Your task to perform on an android device: Look up the best rated headphones on Amazon. Image 0: 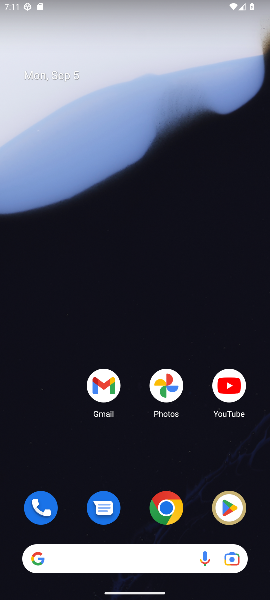
Step 0: click (169, 507)
Your task to perform on an android device: Look up the best rated headphones on Amazon. Image 1: 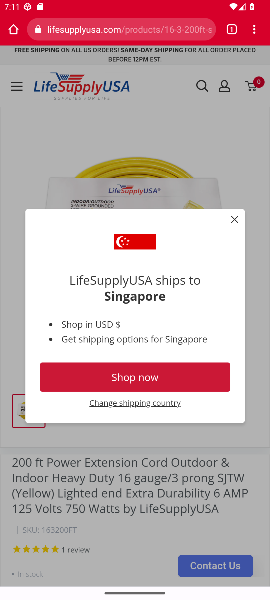
Step 1: click (237, 219)
Your task to perform on an android device: Look up the best rated headphones on Amazon. Image 2: 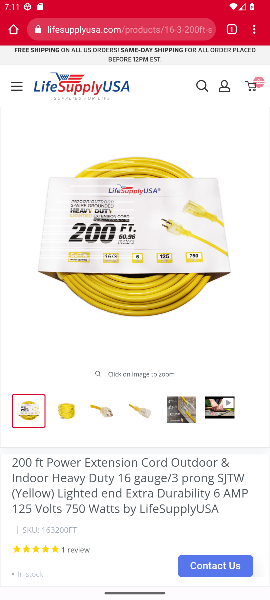
Step 2: click (79, 32)
Your task to perform on an android device: Look up the best rated headphones on Amazon. Image 3: 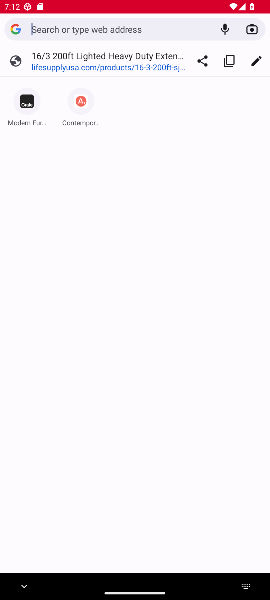
Step 3: type "amazon"
Your task to perform on an android device: Look up the best rated headphones on Amazon. Image 4: 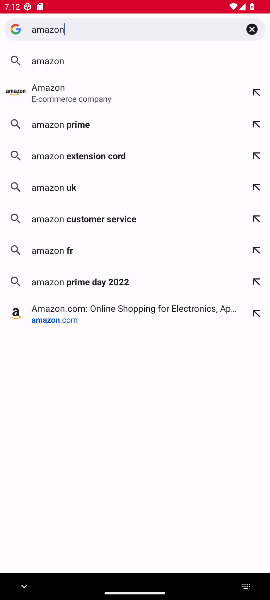
Step 4: click (43, 97)
Your task to perform on an android device: Look up the best rated headphones on Amazon. Image 5: 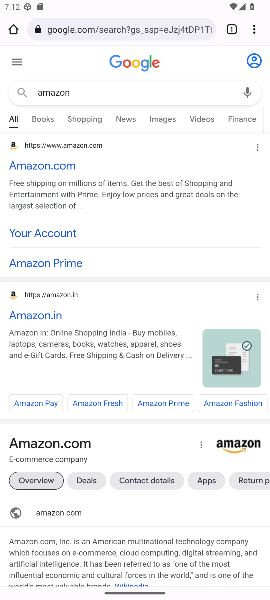
Step 5: click (39, 166)
Your task to perform on an android device: Look up the best rated headphones on Amazon. Image 6: 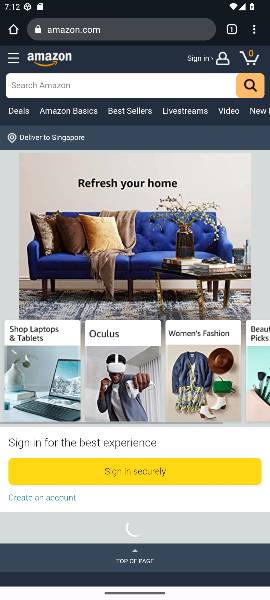
Step 6: click (108, 87)
Your task to perform on an android device: Look up the best rated headphones on Amazon. Image 7: 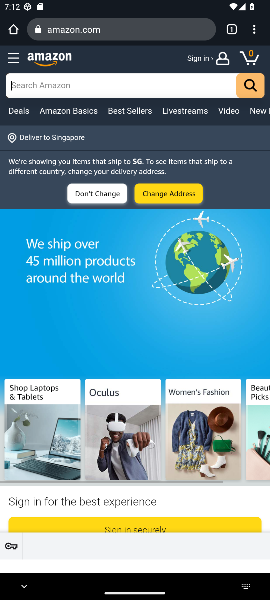
Step 7: type "best rated headphones"
Your task to perform on an android device: Look up the best rated headphones on Amazon. Image 8: 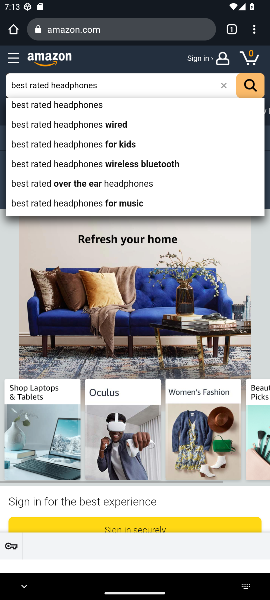
Step 8: click (35, 113)
Your task to perform on an android device: Look up the best rated headphones on Amazon. Image 9: 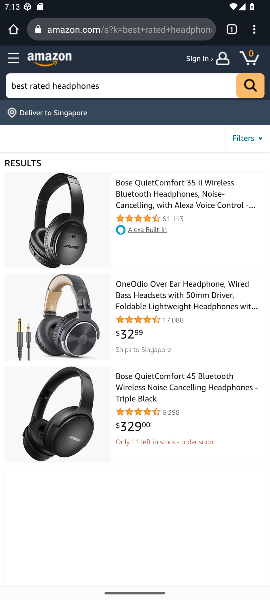
Step 9: task complete